Your task to perform on an android device: change the clock display to analog Image 0: 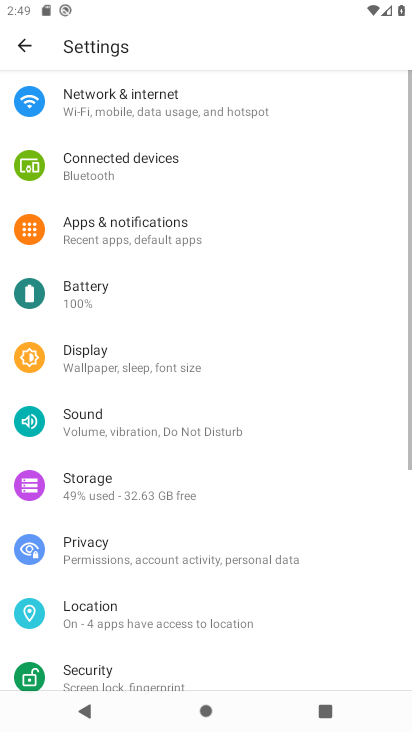
Step 0: press home button
Your task to perform on an android device: change the clock display to analog Image 1: 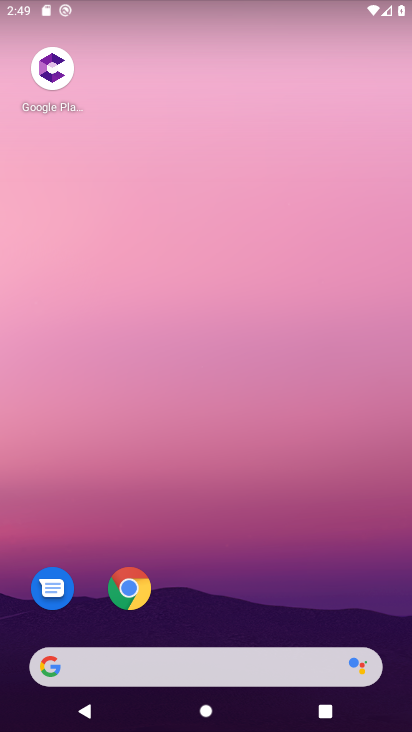
Step 1: drag from (213, 636) to (228, 52)
Your task to perform on an android device: change the clock display to analog Image 2: 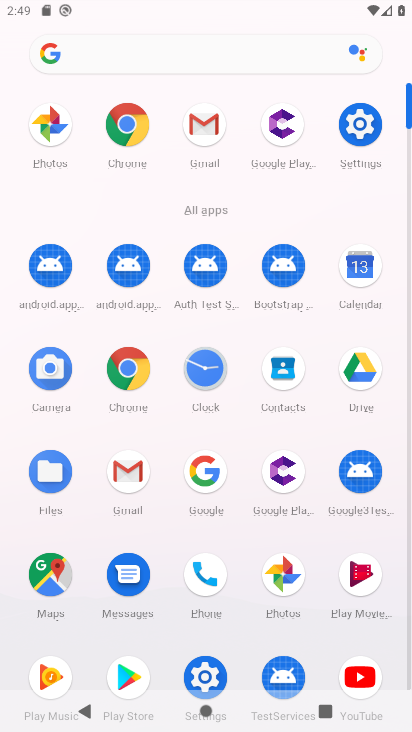
Step 2: click (203, 372)
Your task to perform on an android device: change the clock display to analog Image 3: 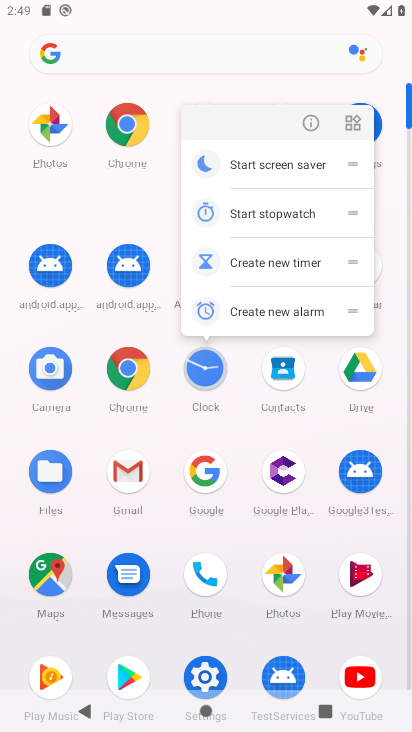
Step 3: click (223, 377)
Your task to perform on an android device: change the clock display to analog Image 4: 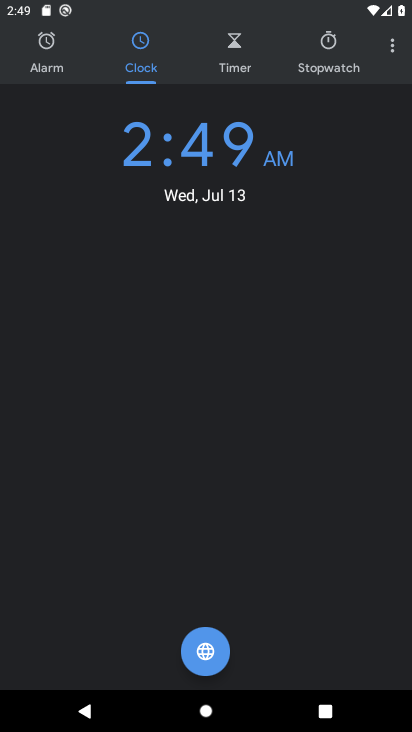
Step 4: click (392, 48)
Your task to perform on an android device: change the clock display to analog Image 5: 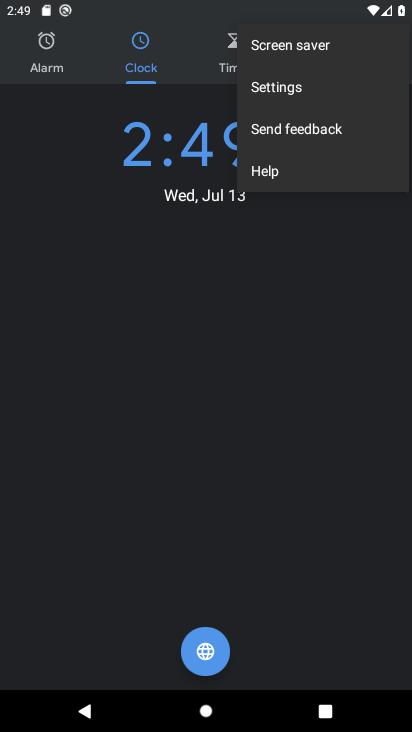
Step 5: click (253, 85)
Your task to perform on an android device: change the clock display to analog Image 6: 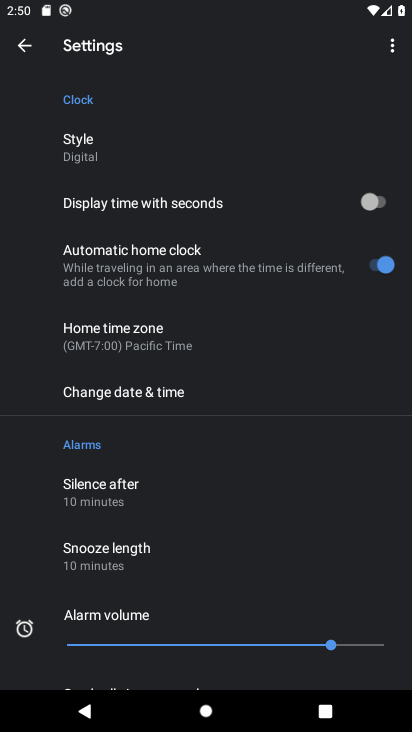
Step 6: click (114, 150)
Your task to perform on an android device: change the clock display to analog Image 7: 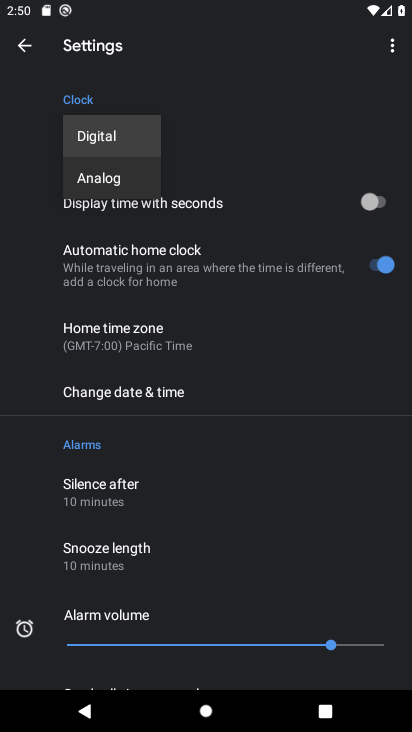
Step 7: click (121, 176)
Your task to perform on an android device: change the clock display to analog Image 8: 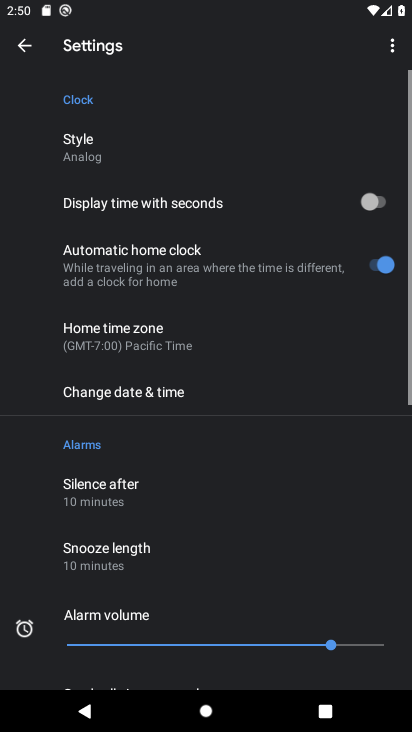
Step 8: task complete